Your task to perform on an android device: change timer sound Image 0: 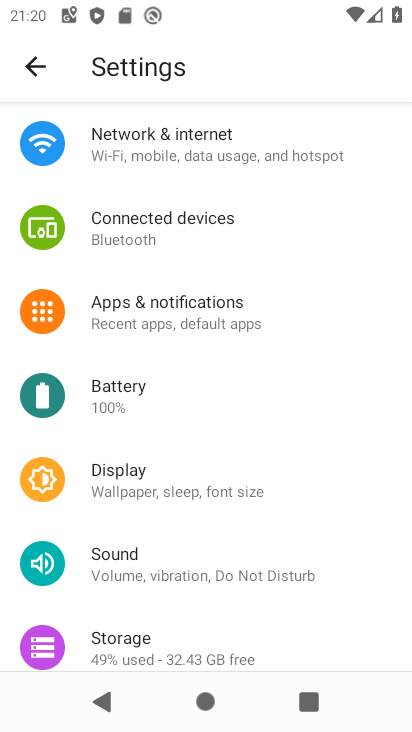
Step 0: press home button
Your task to perform on an android device: change timer sound Image 1: 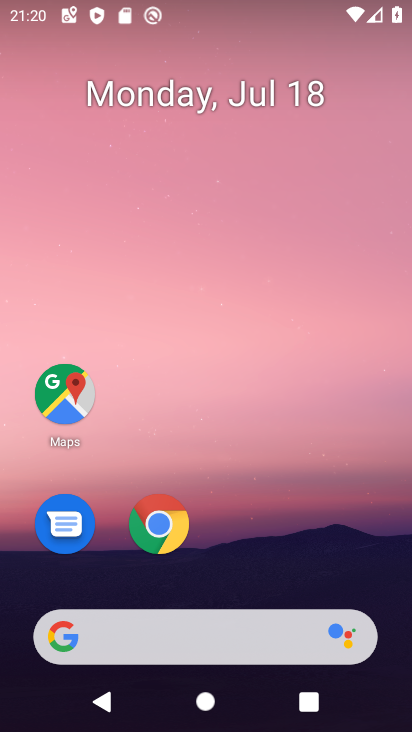
Step 1: drag from (251, 529) to (283, 39)
Your task to perform on an android device: change timer sound Image 2: 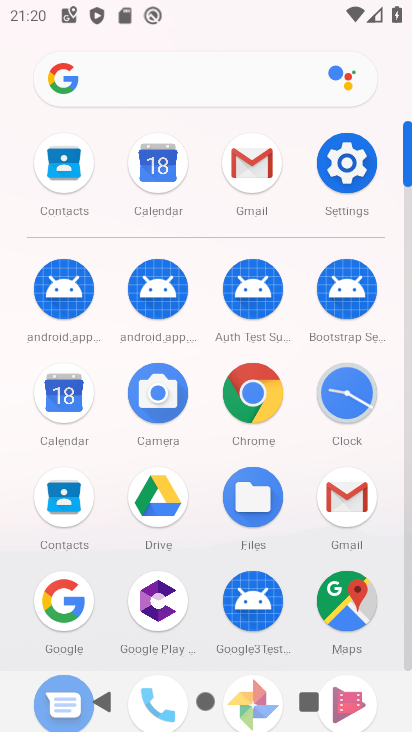
Step 2: click (362, 404)
Your task to perform on an android device: change timer sound Image 3: 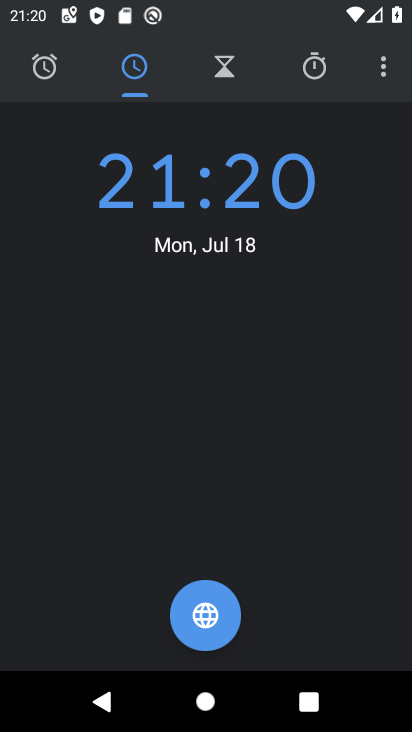
Step 3: click (385, 73)
Your task to perform on an android device: change timer sound Image 4: 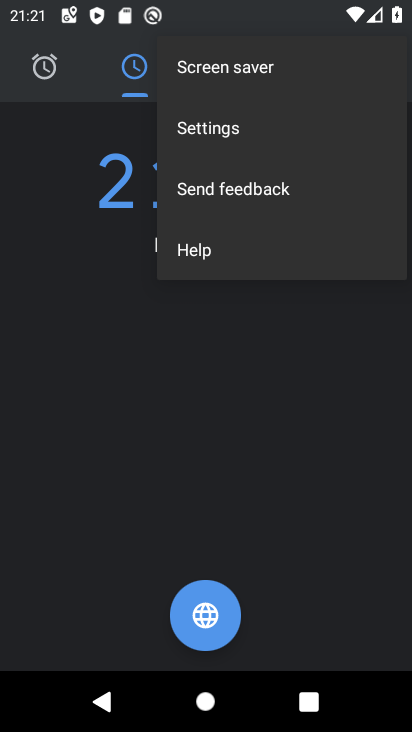
Step 4: click (314, 133)
Your task to perform on an android device: change timer sound Image 5: 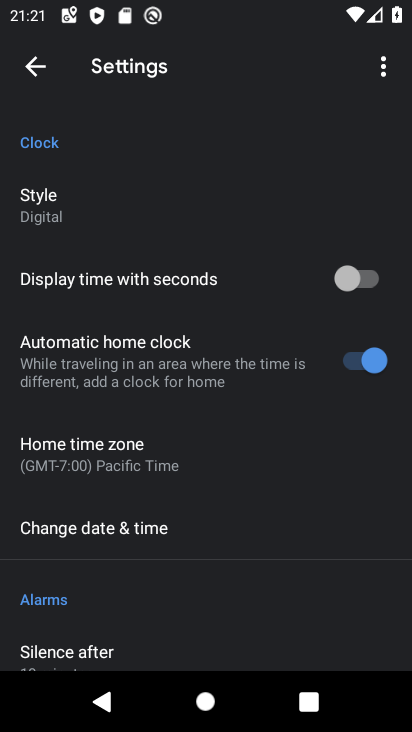
Step 5: drag from (257, 451) to (302, 89)
Your task to perform on an android device: change timer sound Image 6: 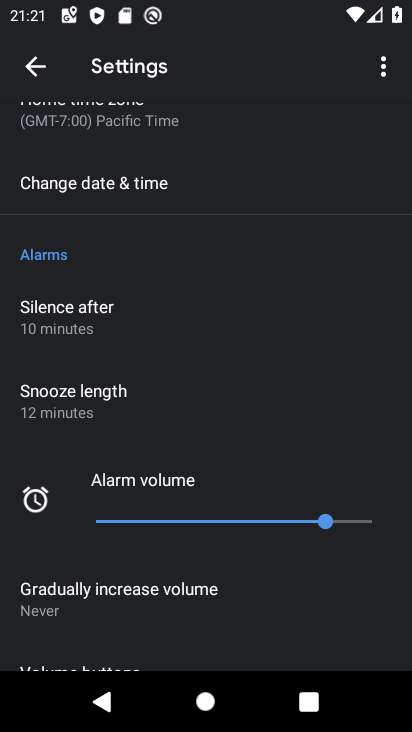
Step 6: drag from (292, 460) to (296, 141)
Your task to perform on an android device: change timer sound Image 7: 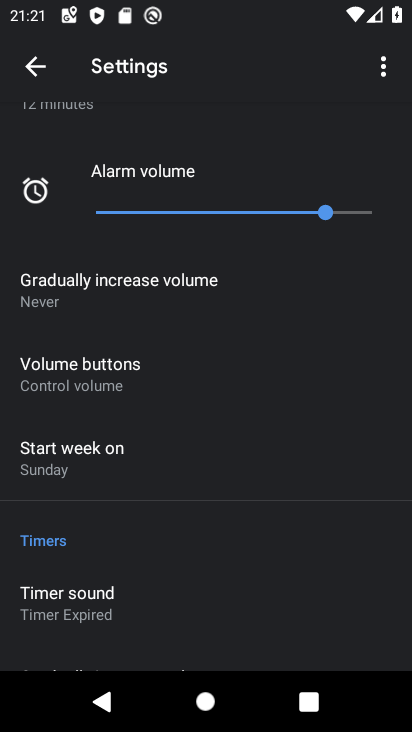
Step 7: drag from (225, 569) to (239, 350)
Your task to perform on an android device: change timer sound Image 8: 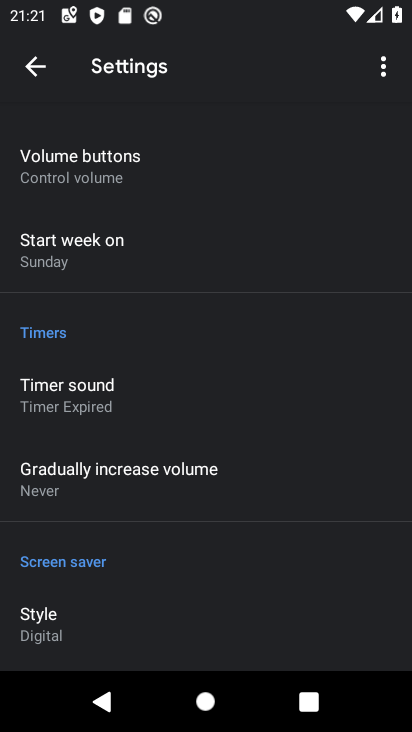
Step 8: click (100, 400)
Your task to perform on an android device: change timer sound Image 9: 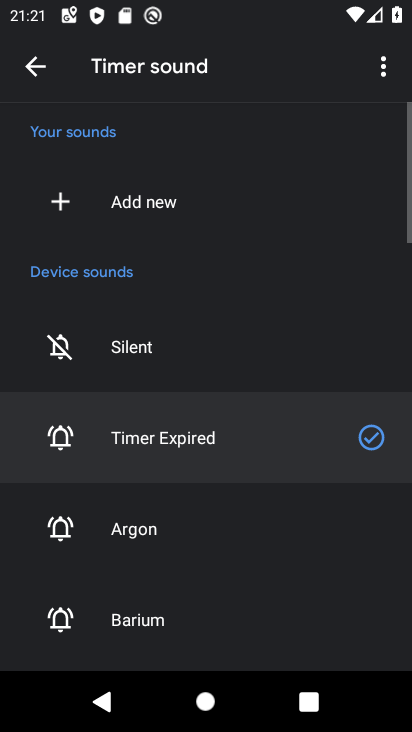
Step 9: click (133, 532)
Your task to perform on an android device: change timer sound Image 10: 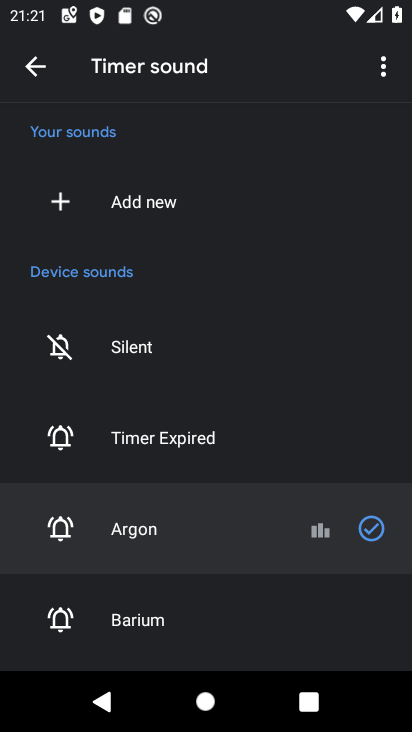
Step 10: task complete